Your task to perform on an android device: see creations saved in the google photos Image 0: 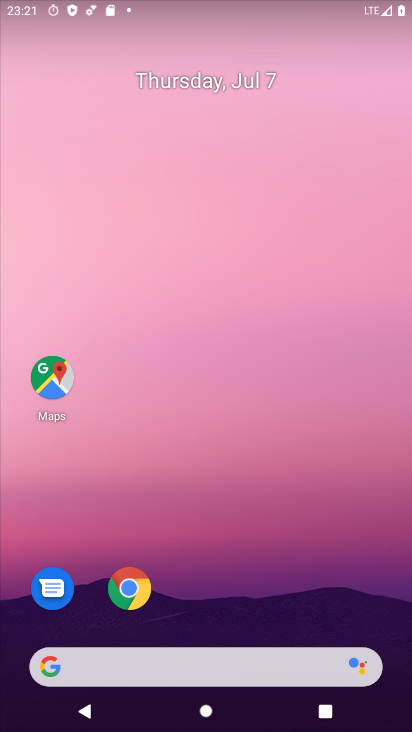
Step 0: drag from (328, 596) to (320, 79)
Your task to perform on an android device: see creations saved in the google photos Image 1: 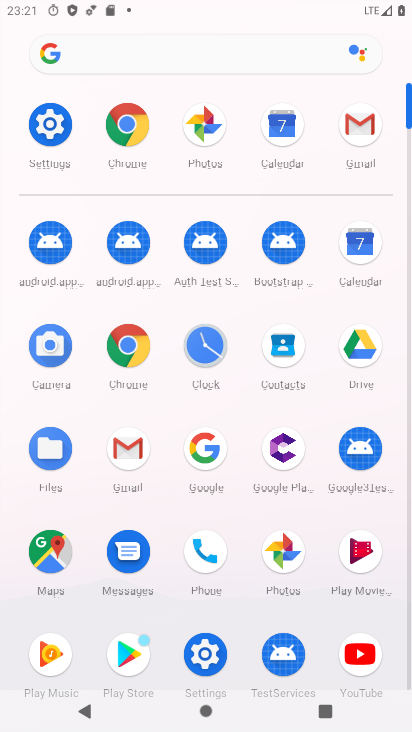
Step 1: click (289, 555)
Your task to perform on an android device: see creations saved in the google photos Image 2: 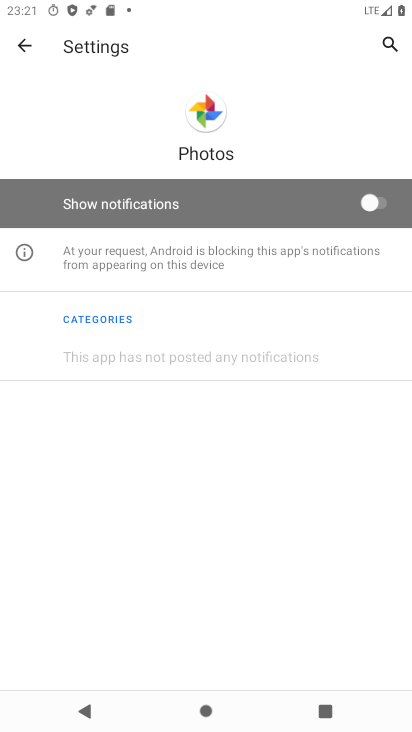
Step 2: click (28, 42)
Your task to perform on an android device: see creations saved in the google photos Image 3: 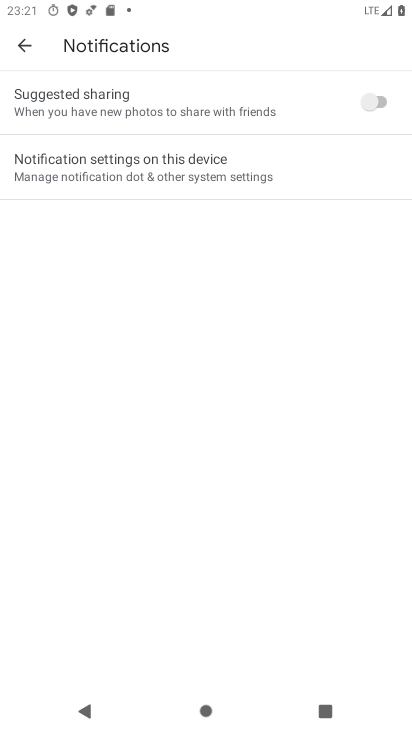
Step 3: click (29, 42)
Your task to perform on an android device: see creations saved in the google photos Image 4: 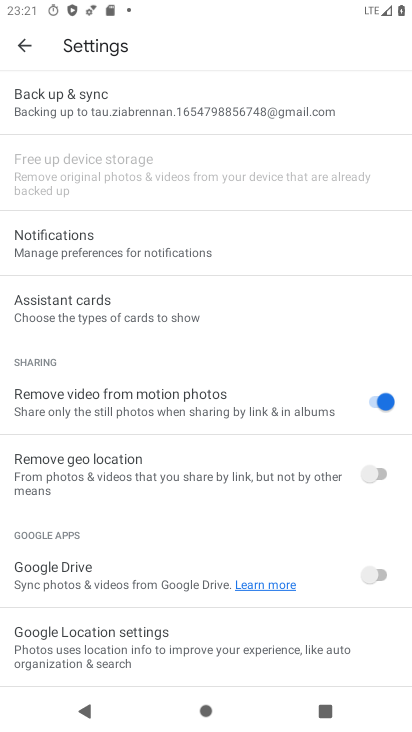
Step 4: click (28, 42)
Your task to perform on an android device: see creations saved in the google photos Image 5: 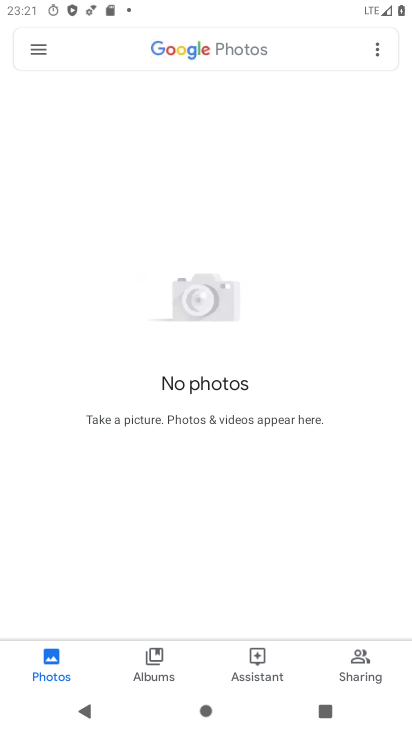
Step 5: click (282, 671)
Your task to perform on an android device: see creations saved in the google photos Image 6: 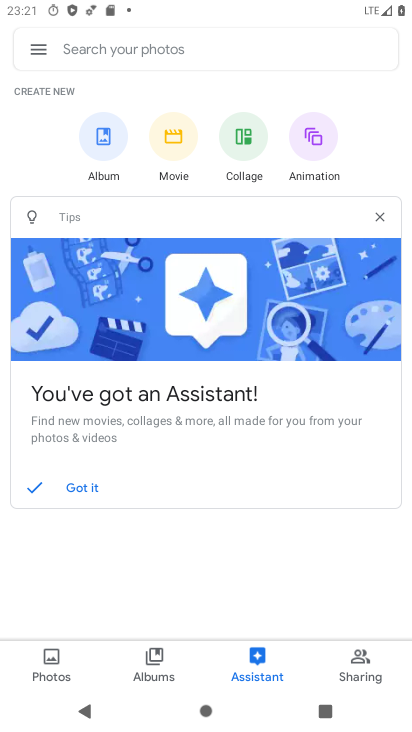
Step 6: click (152, 666)
Your task to perform on an android device: see creations saved in the google photos Image 7: 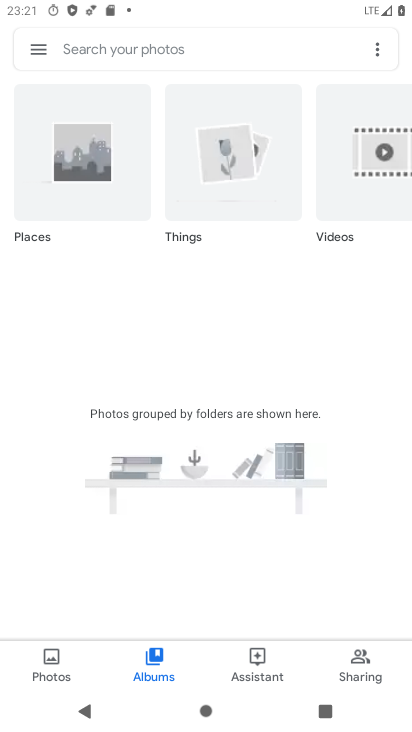
Step 7: click (375, 662)
Your task to perform on an android device: see creations saved in the google photos Image 8: 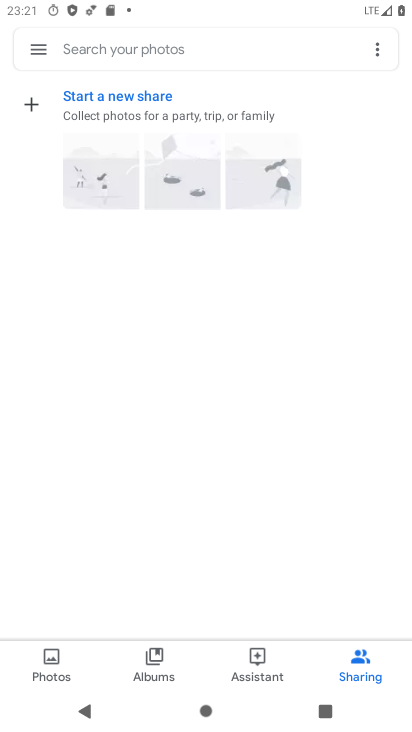
Step 8: click (150, 679)
Your task to perform on an android device: see creations saved in the google photos Image 9: 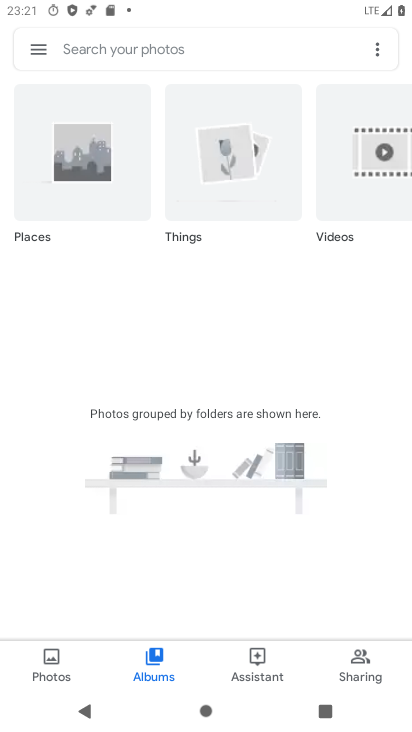
Step 9: task complete